Your task to perform on an android device: change timer sound Image 0: 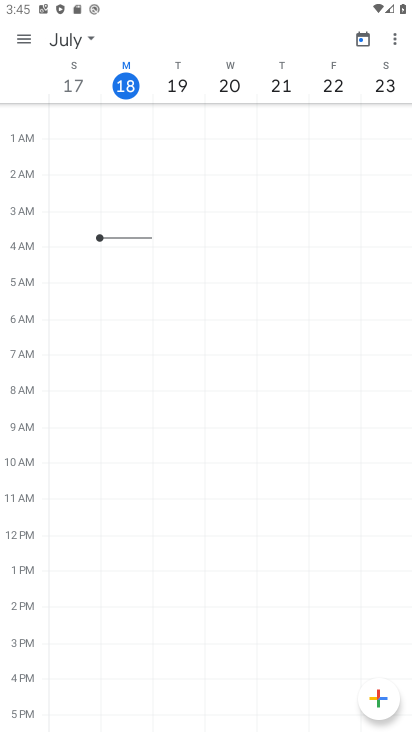
Step 0: press home button
Your task to perform on an android device: change timer sound Image 1: 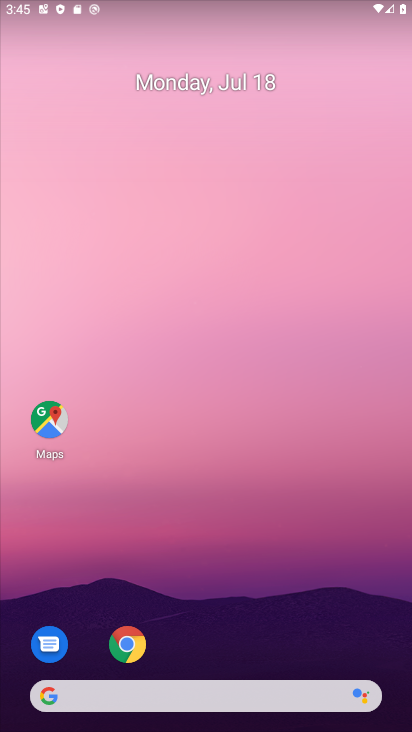
Step 1: drag from (395, 659) to (334, 228)
Your task to perform on an android device: change timer sound Image 2: 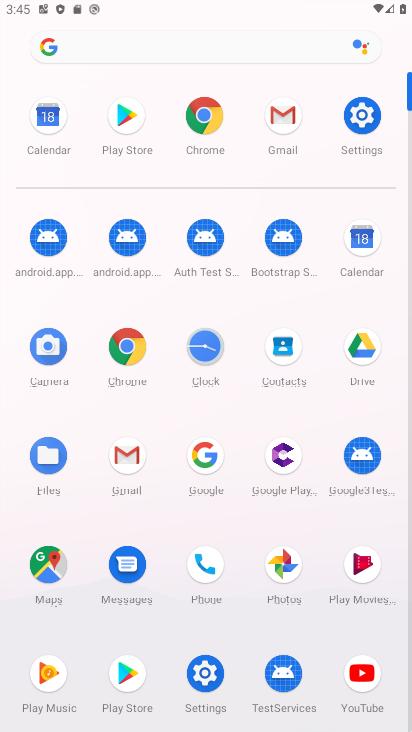
Step 2: click (206, 343)
Your task to perform on an android device: change timer sound Image 3: 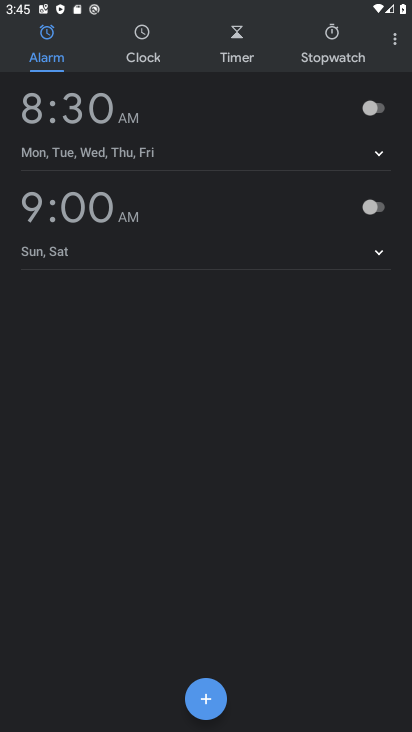
Step 3: click (392, 45)
Your task to perform on an android device: change timer sound Image 4: 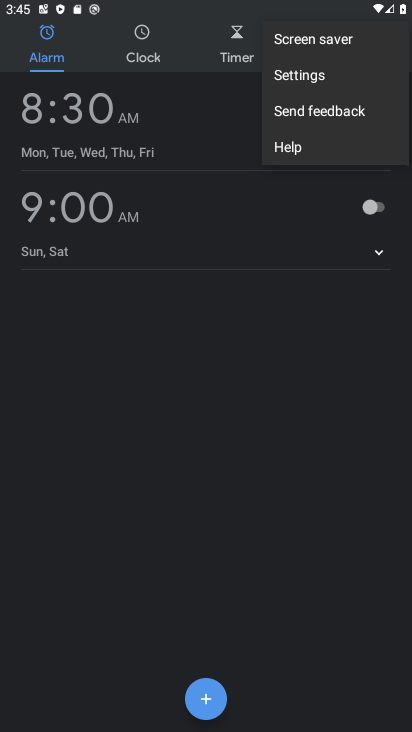
Step 4: click (310, 75)
Your task to perform on an android device: change timer sound Image 5: 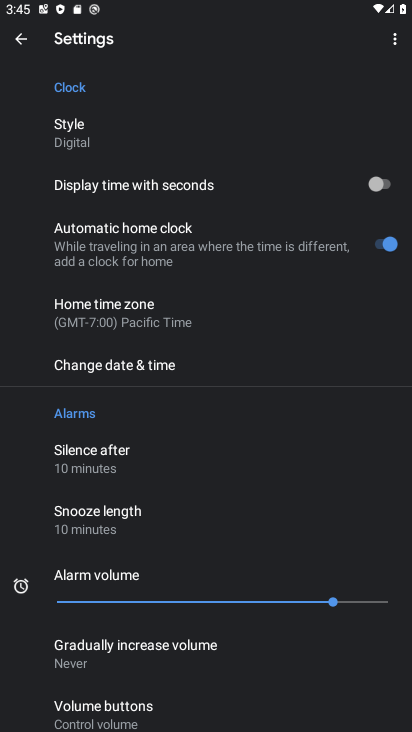
Step 5: drag from (214, 672) to (248, 300)
Your task to perform on an android device: change timer sound Image 6: 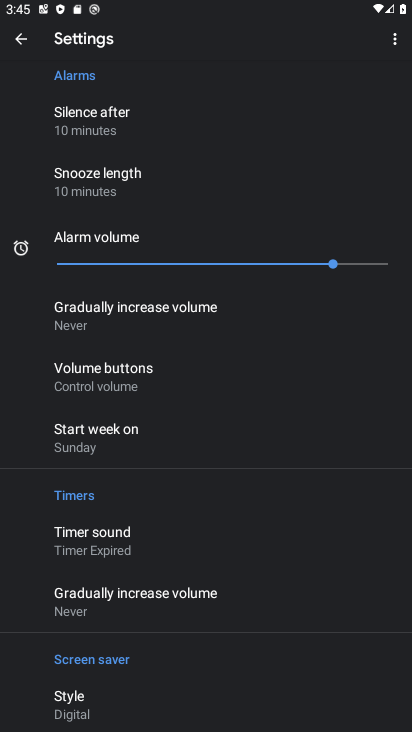
Step 6: click (87, 529)
Your task to perform on an android device: change timer sound Image 7: 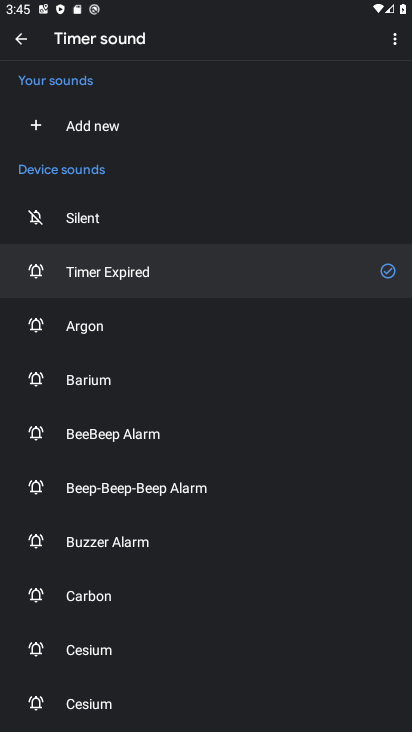
Step 7: click (83, 546)
Your task to perform on an android device: change timer sound Image 8: 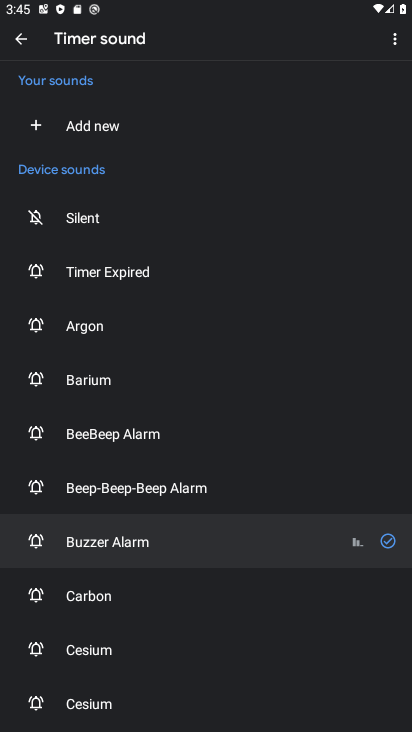
Step 8: task complete